Your task to perform on an android device: Turn off the flashlight Image 0: 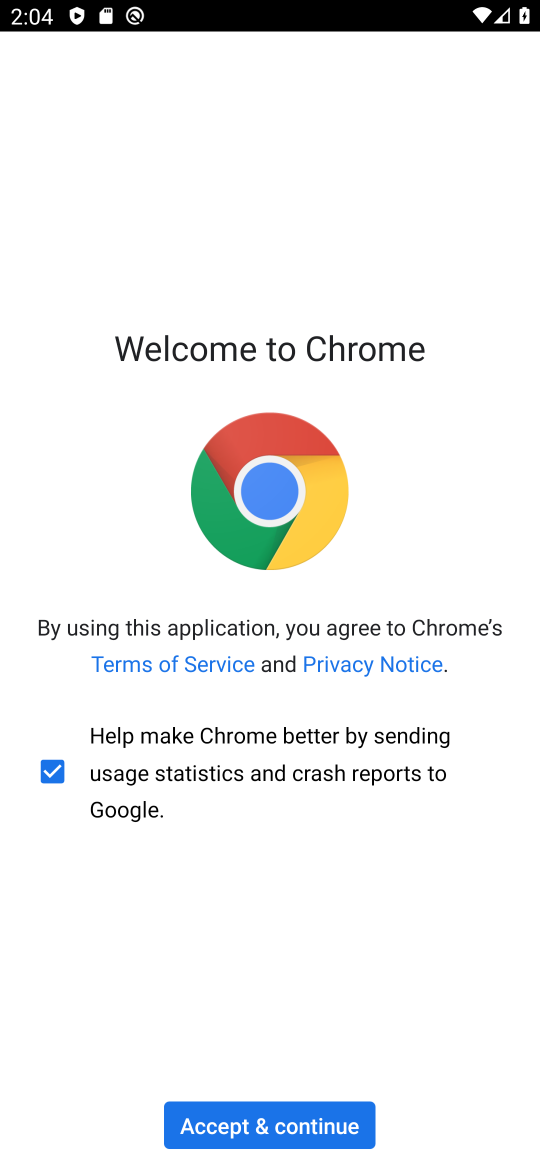
Step 0: press home button
Your task to perform on an android device: Turn off the flashlight Image 1: 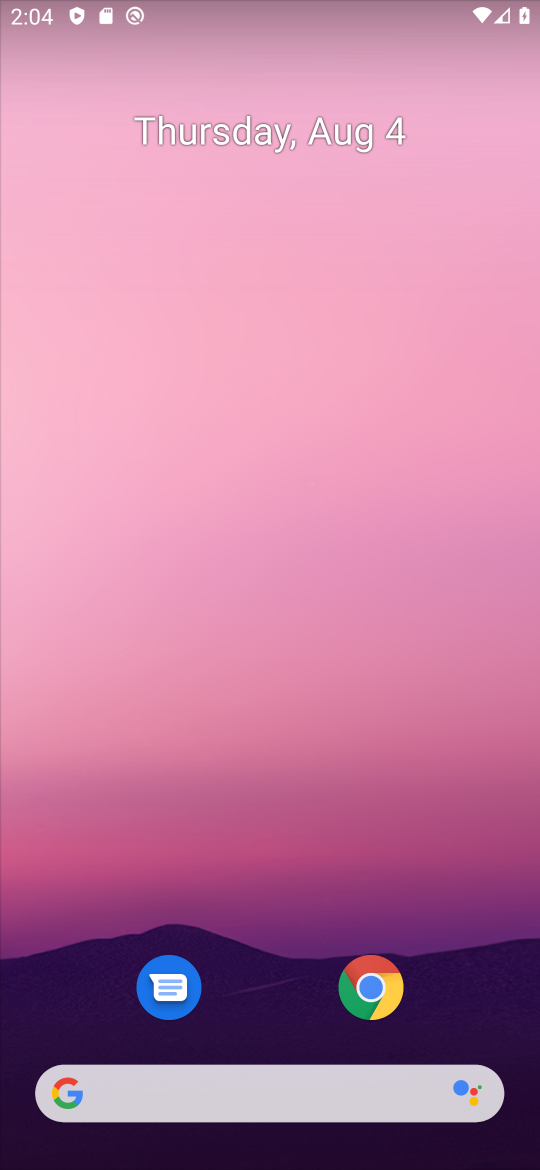
Step 1: task complete